Your task to perform on an android device: toggle airplane mode Image 0: 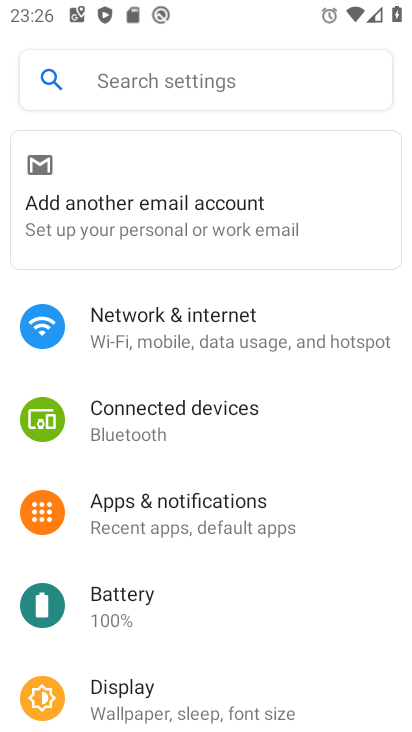
Step 0: click (105, 324)
Your task to perform on an android device: toggle airplane mode Image 1: 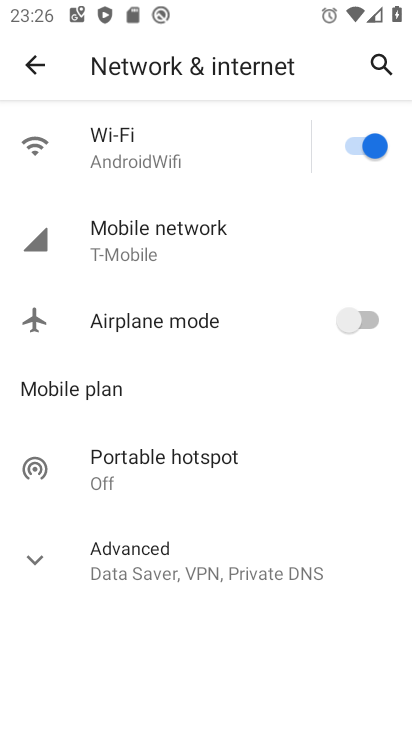
Step 1: click (355, 337)
Your task to perform on an android device: toggle airplane mode Image 2: 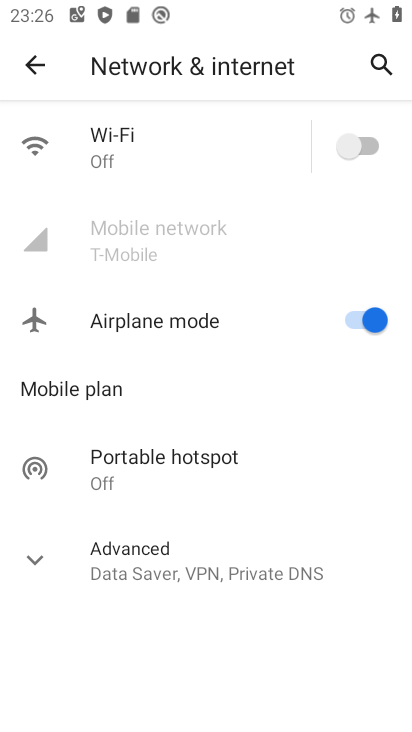
Step 2: task complete